Your task to perform on an android device: check android version Image 0: 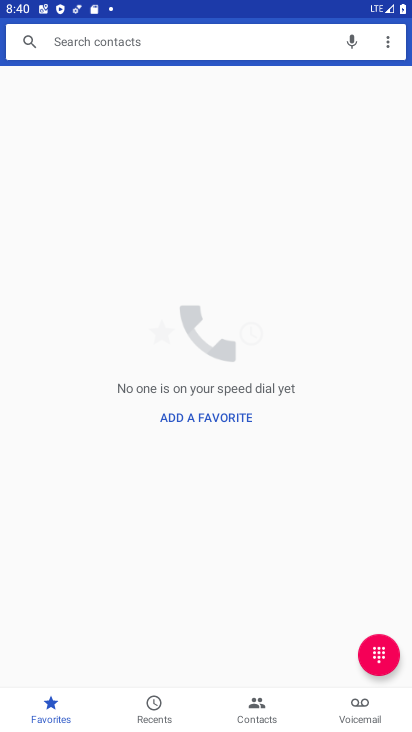
Step 0: press home button
Your task to perform on an android device: check android version Image 1: 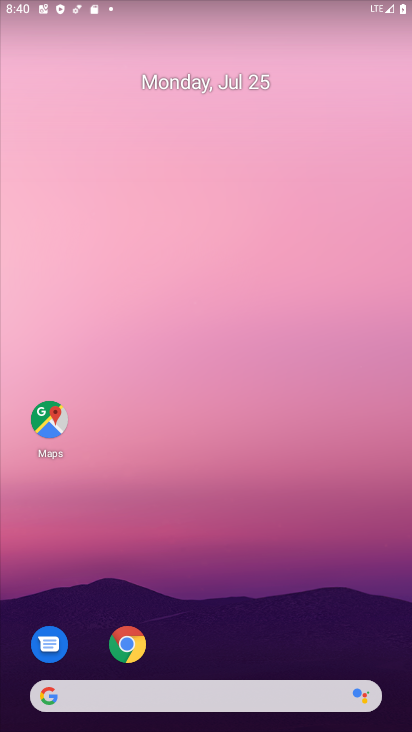
Step 1: drag from (264, 443) to (237, 92)
Your task to perform on an android device: check android version Image 2: 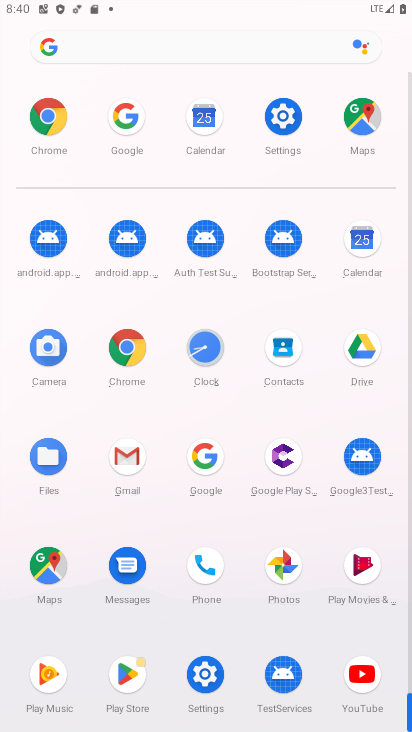
Step 2: drag from (229, 187) to (228, 40)
Your task to perform on an android device: check android version Image 3: 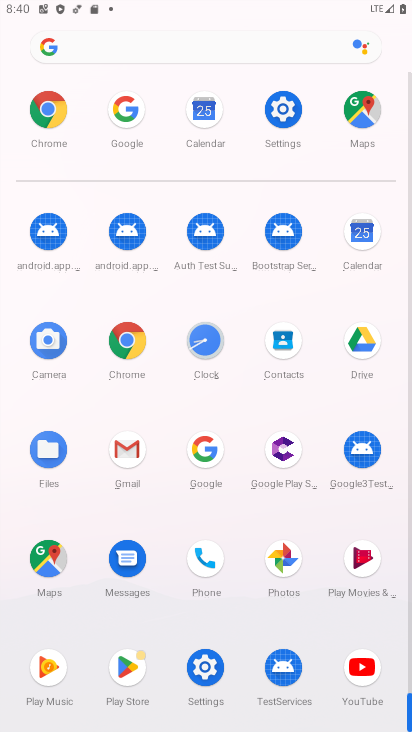
Step 3: click (214, 655)
Your task to perform on an android device: check android version Image 4: 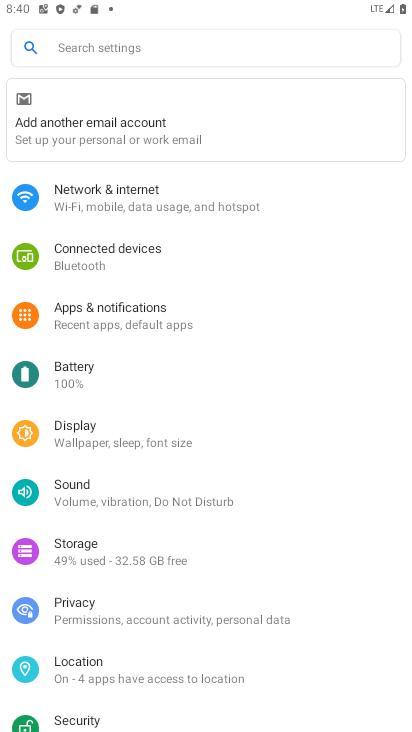
Step 4: drag from (205, 610) to (229, 174)
Your task to perform on an android device: check android version Image 5: 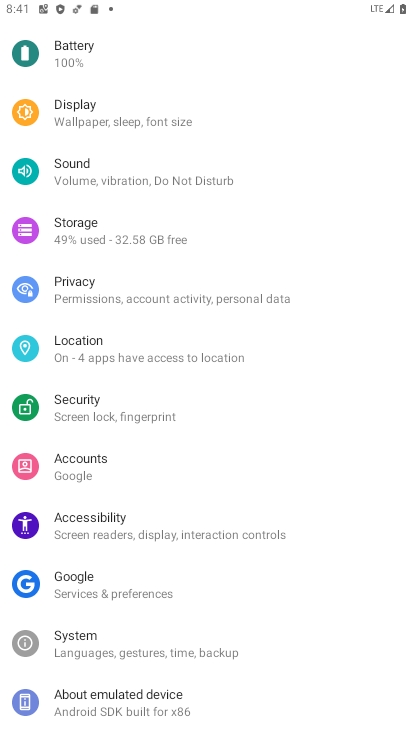
Step 5: click (142, 699)
Your task to perform on an android device: check android version Image 6: 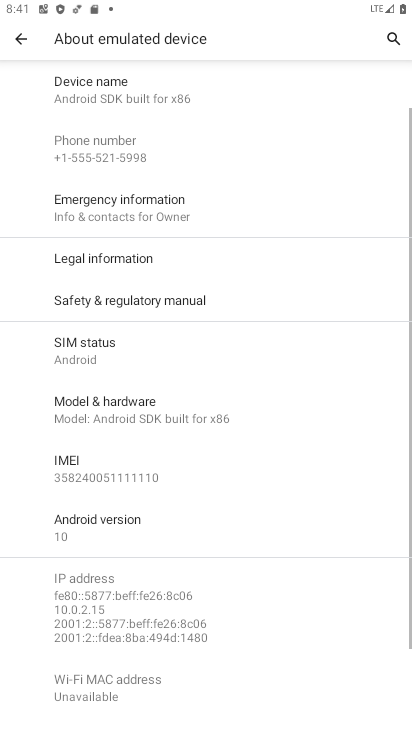
Step 6: click (161, 535)
Your task to perform on an android device: check android version Image 7: 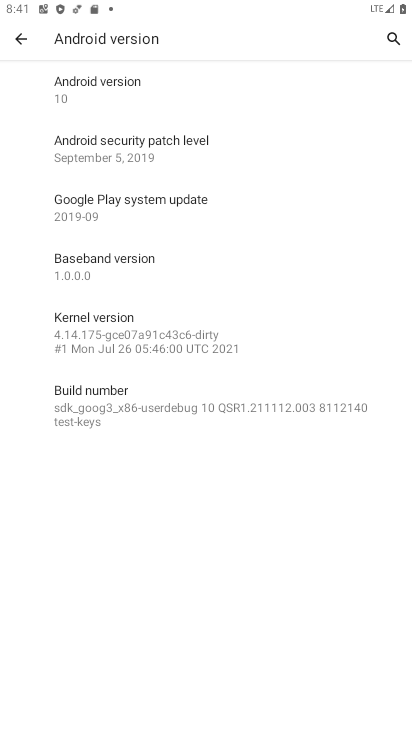
Step 7: task complete